Your task to perform on an android device: See recent photos Image 0: 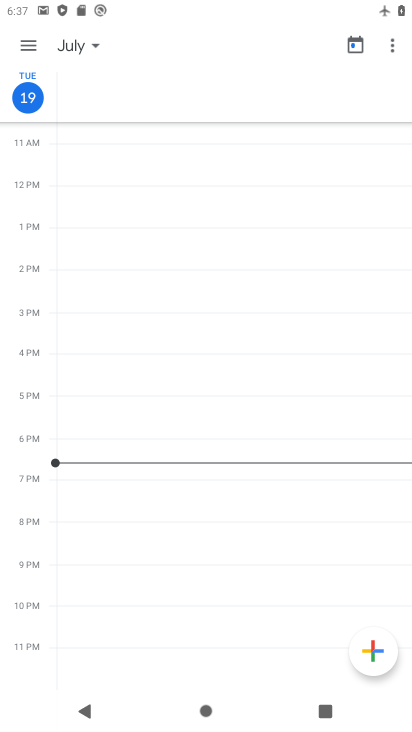
Step 0: press home button
Your task to perform on an android device: See recent photos Image 1: 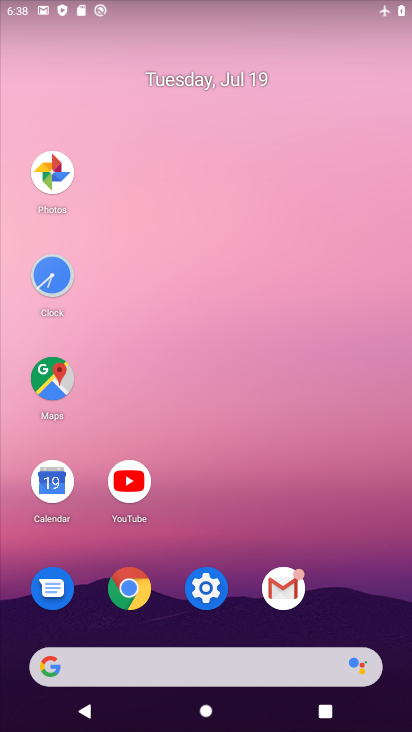
Step 1: click (33, 174)
Your task to perform on an android device: See recent photos Image 2: 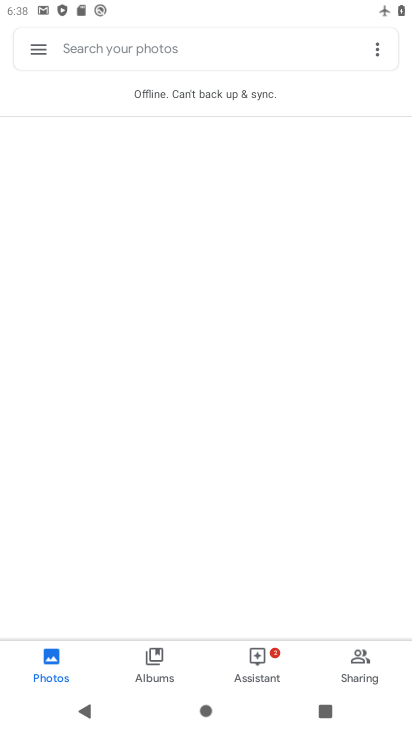
Step 2: task complete